Your task to perform on an android device: Open calendar and show me the fourth week of next month Image 0: 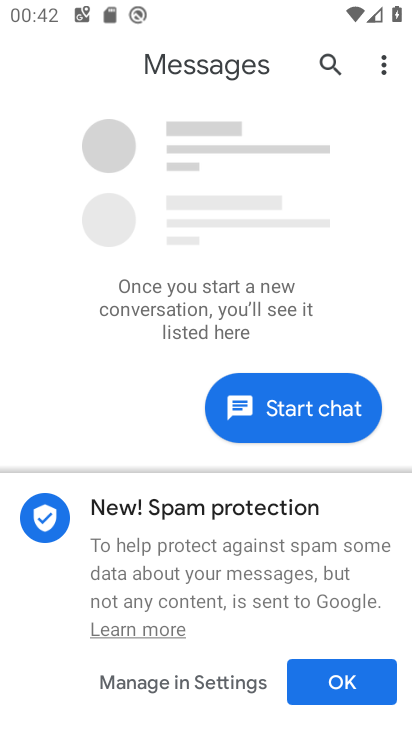
Step 0: press home button
Your task to perform on an android device: Open calendar and show me the fourth week of next month Image 1: 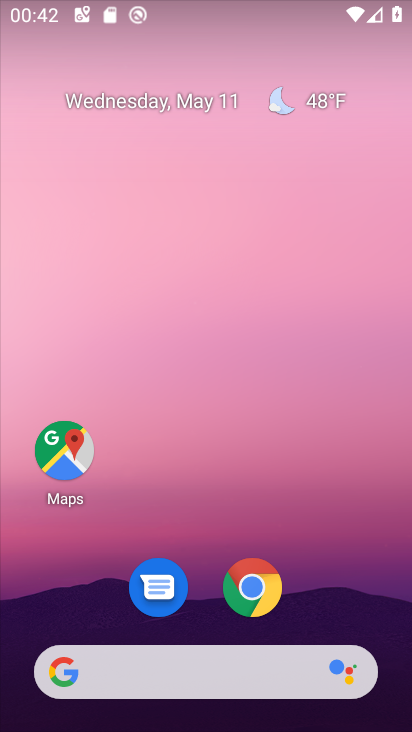
Step 1: drag from (331, 584) to (272, 192)
Your task to perform on an android device: Open calendar and show me the fourth week of next month Image 2: 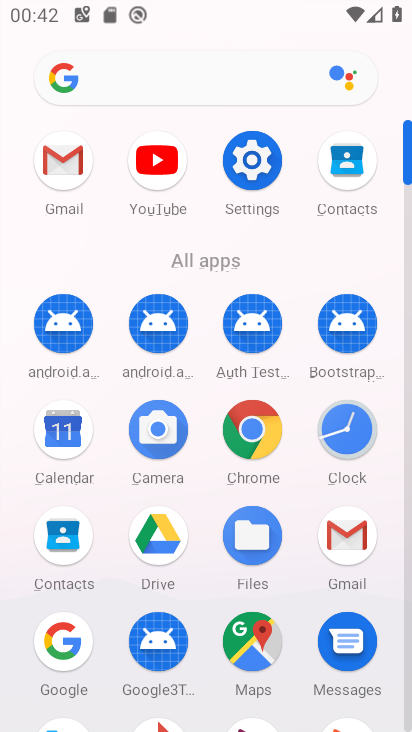
Step 2: click (59, 442)
Your task to perform on an android device: Open calendar and show me the fourth week of next month Image 3: 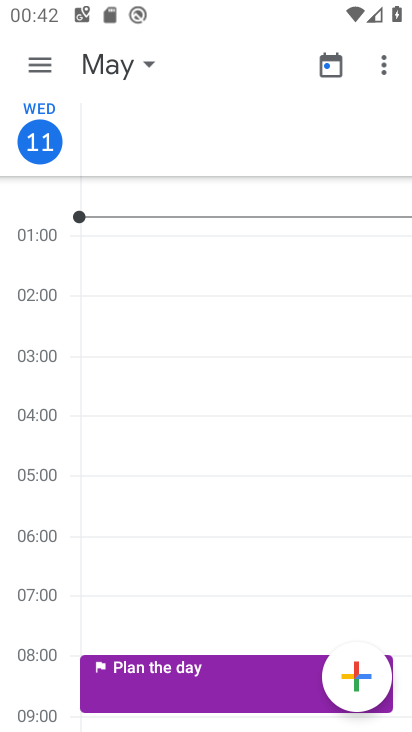
Step 3: click (50, 69)
Your task to perform on an android device: Open calendar and show me the fourth week of next month Image 4: 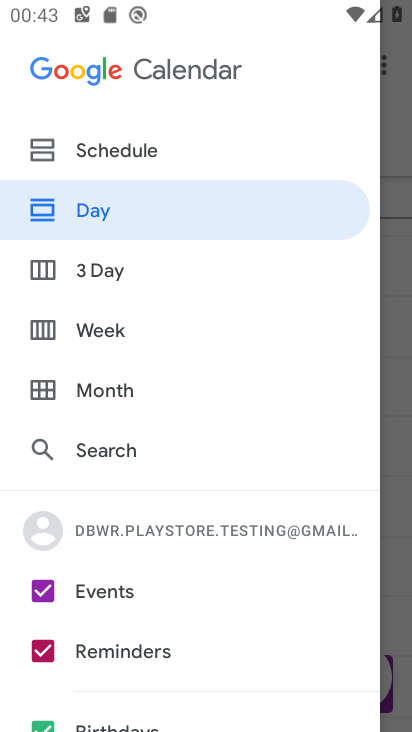
Step 4: click (121, 325)
Your task to perform on an android device: Open calendar and show me the fourth week of next month Image 5: 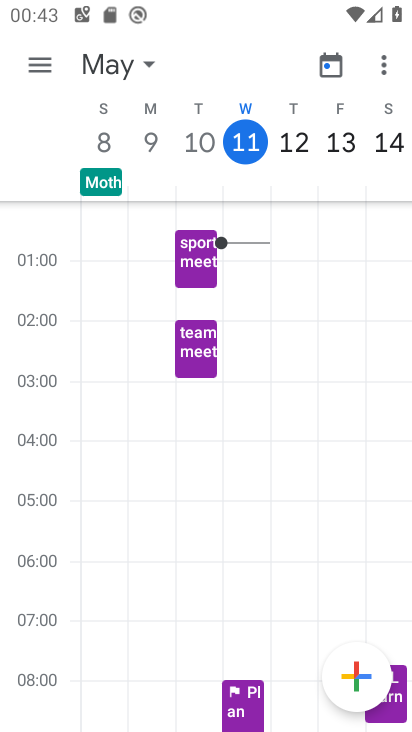
Step 5: click (142, 65)
Your task to perform on an android device: Open calendar and show me the fourth week of next month Image 6: 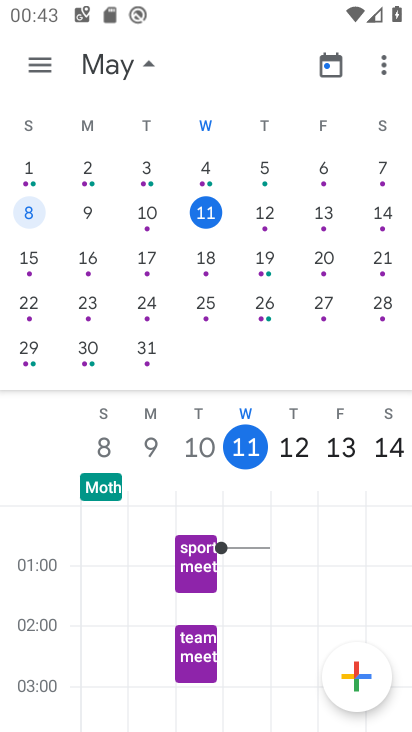
Step 6: drag from (339, 248) to (39, 190)
Your task to perform on an android device: Open calendar and show me the fourth week of next month Image 7: 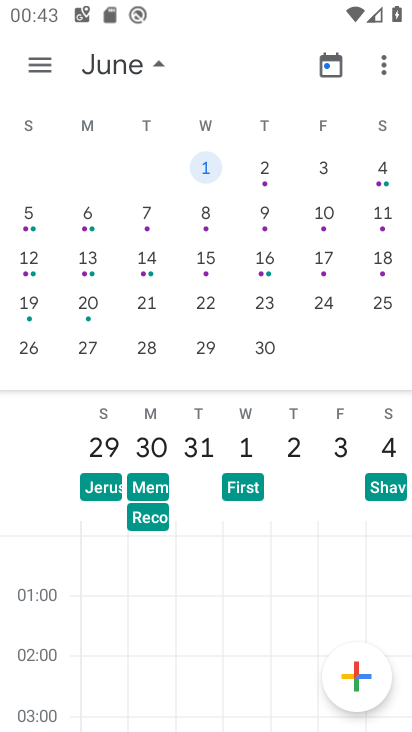
Step 7: click (26, 345)
Your task to perform on an android device: Open calendar and show me the fourth week of next month Image 8: 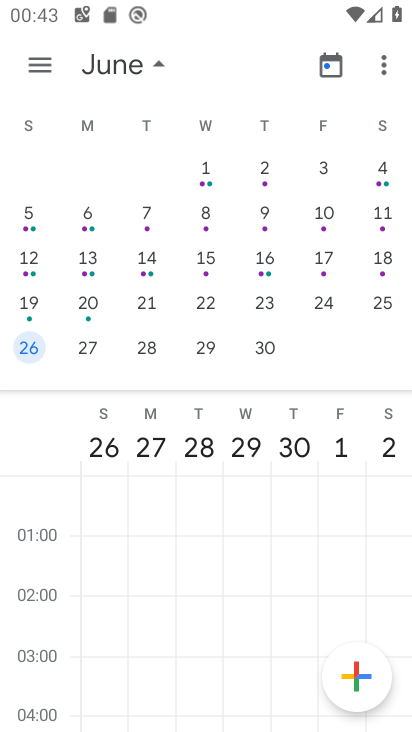
Step 8: task complete